Your task to perform on an android device: open app "Pandora - Music & Podcasts" (install if not already installed), go to login, and select forgot password Image 0: 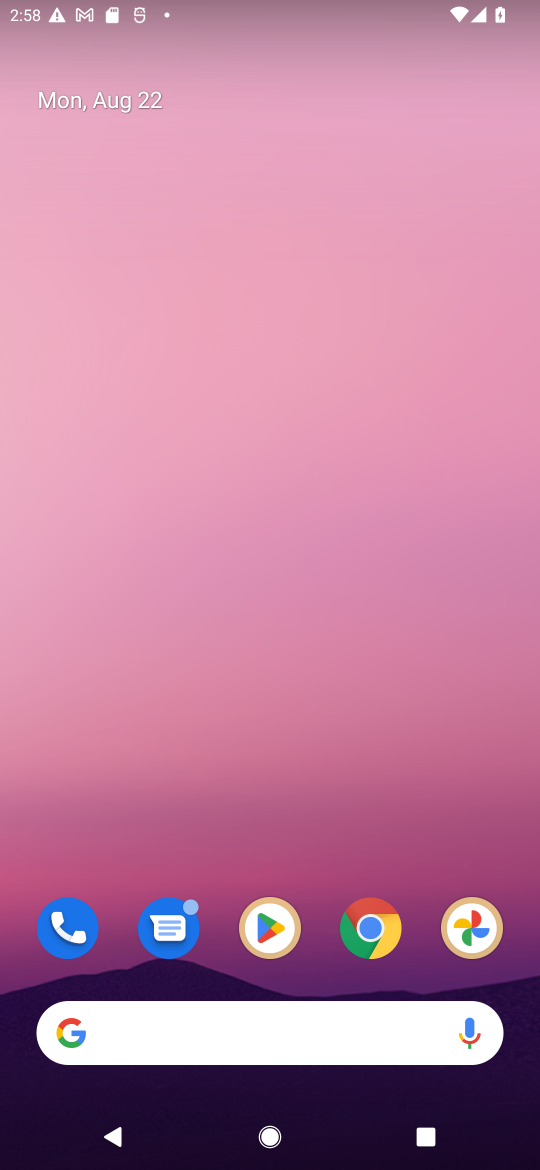
Step 0: click (256, 922)
Your task to perform on an android device: open app "Pandora - Music & Podcasts" (install if not already installed), go to login, and select forgot password Image 1: 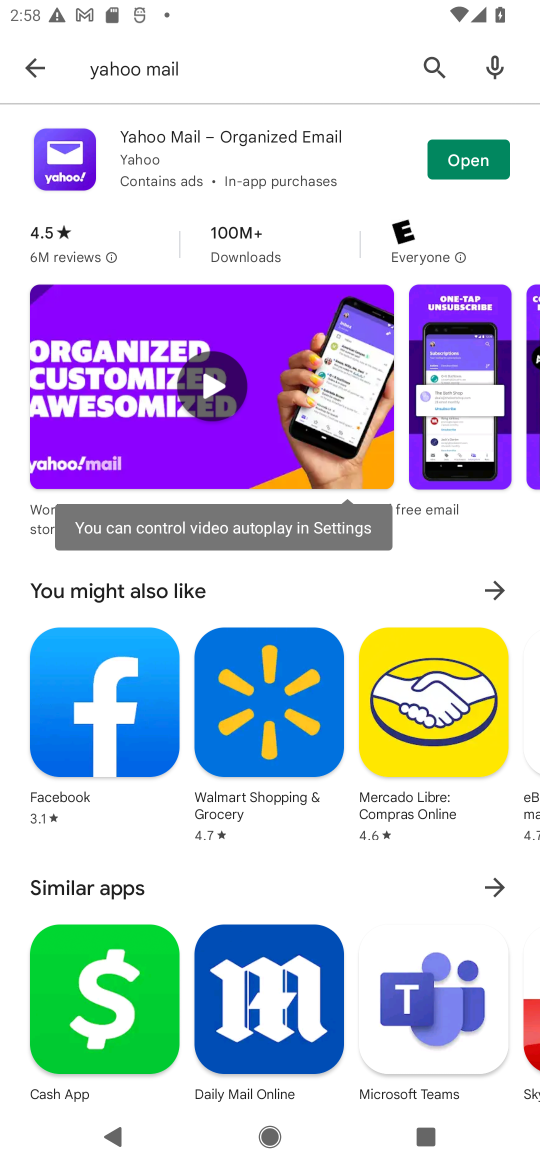
Step 1: click (161, 73)
Your task to perform on an android device: open app "Pandora - Music & Podcasts" (install if not already installed), go to login, and select forgot password Image 2: 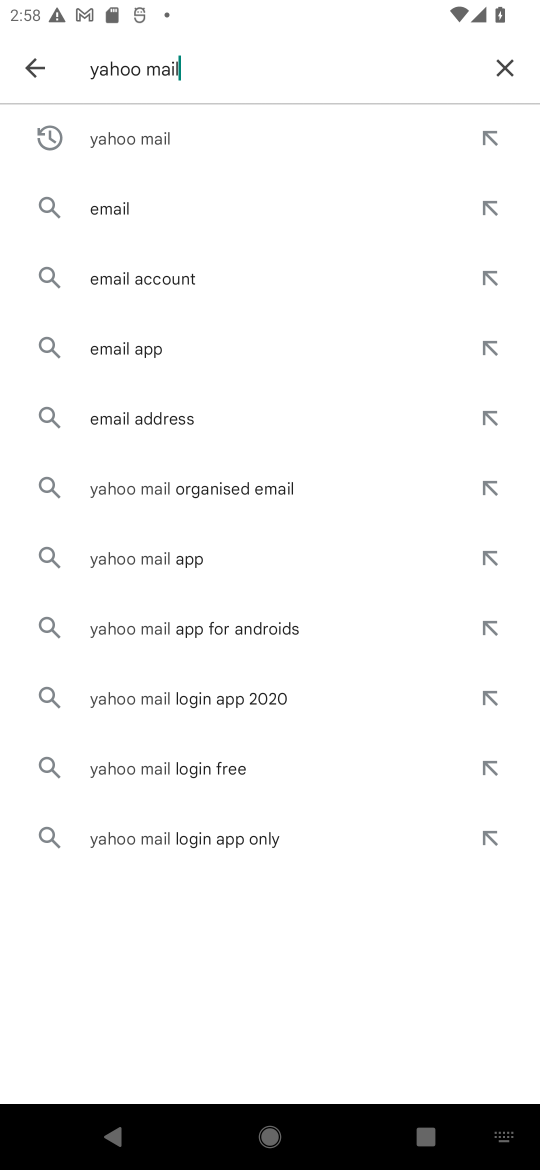
Step 2: click (496, 68)
Your task to perform on an android device: open app "Pandora - Music & Podcasts" (install if not already installed), go to login, and select forgot password Image 3: 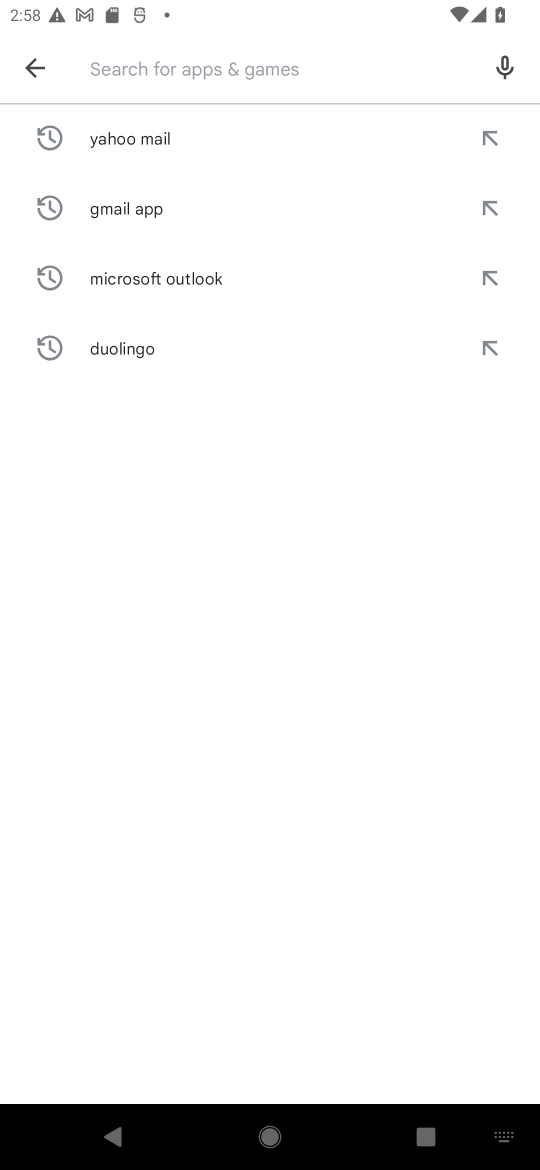
Step 3: type "Pandora"
Your task to perform on an android device: open app "Pandora - Music & Podcasts" (install if not already installed), go to login, and select forgot password Image 4: 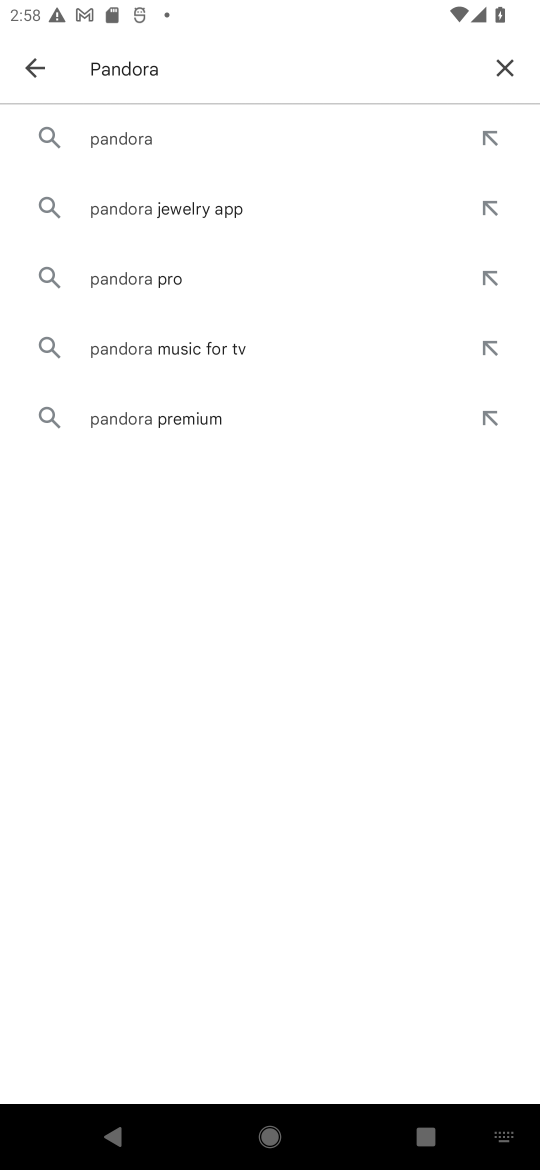
Step 4: click (265, 152)
Your task to perform on an android device: open app "Pandora - Music & Podcasts" (install if not already installed), go to login, and select forgot password Image 5: 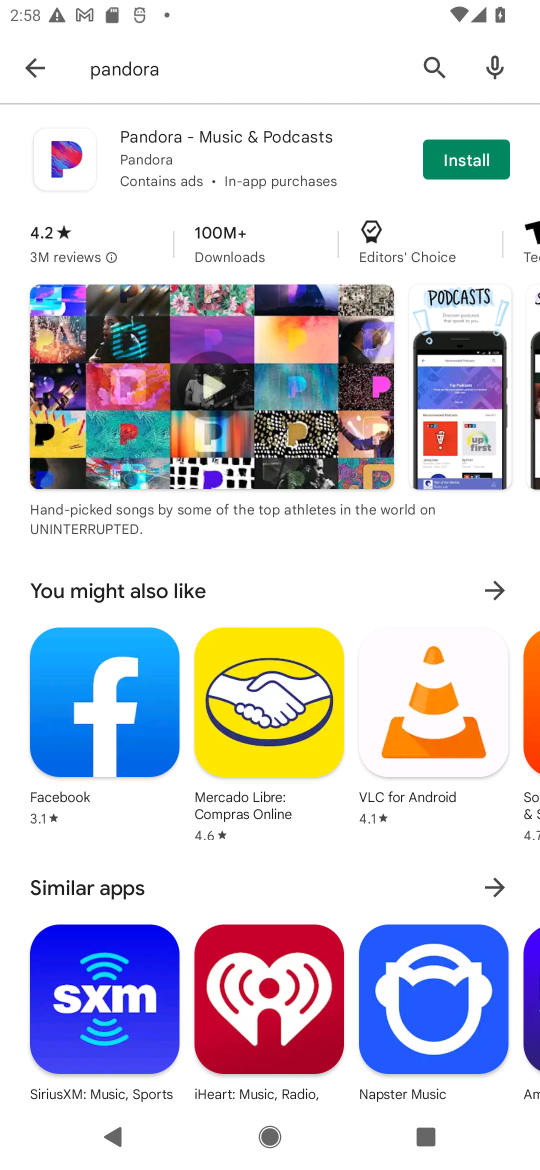
Step 5: click (455, 155)
Your task to perform on an android device: open app "Pandora - Music & Podcasts" (install if not already installed), go to login, and select forgot password Image 6: 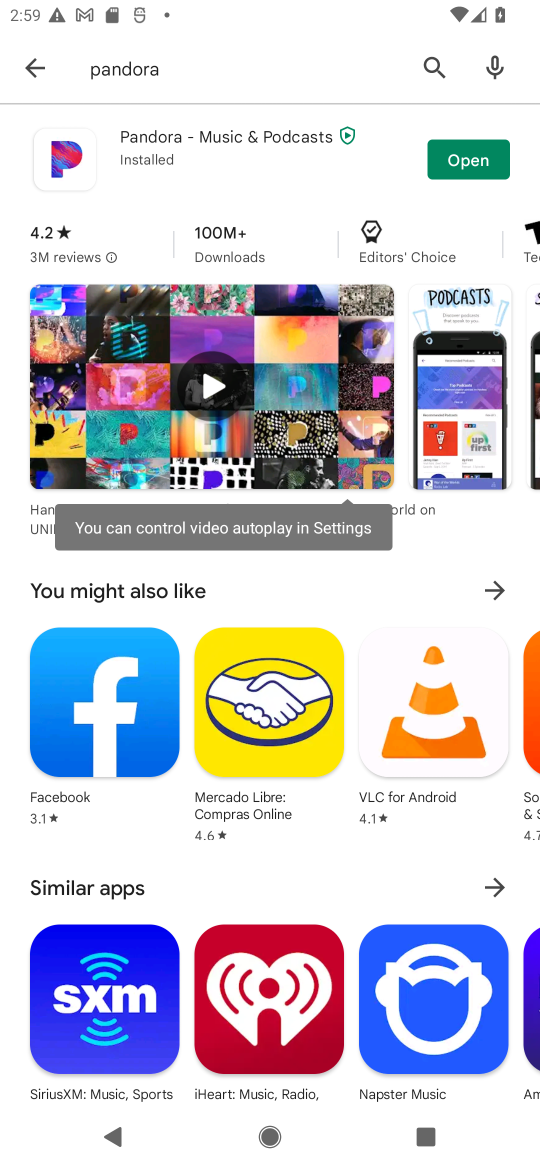
Step 6: click (477, 157)
Your task to perform on an android device: open app "Pandora - Music & Podcasts" (install if not already installed), go to login, and select forgot password Image 7: 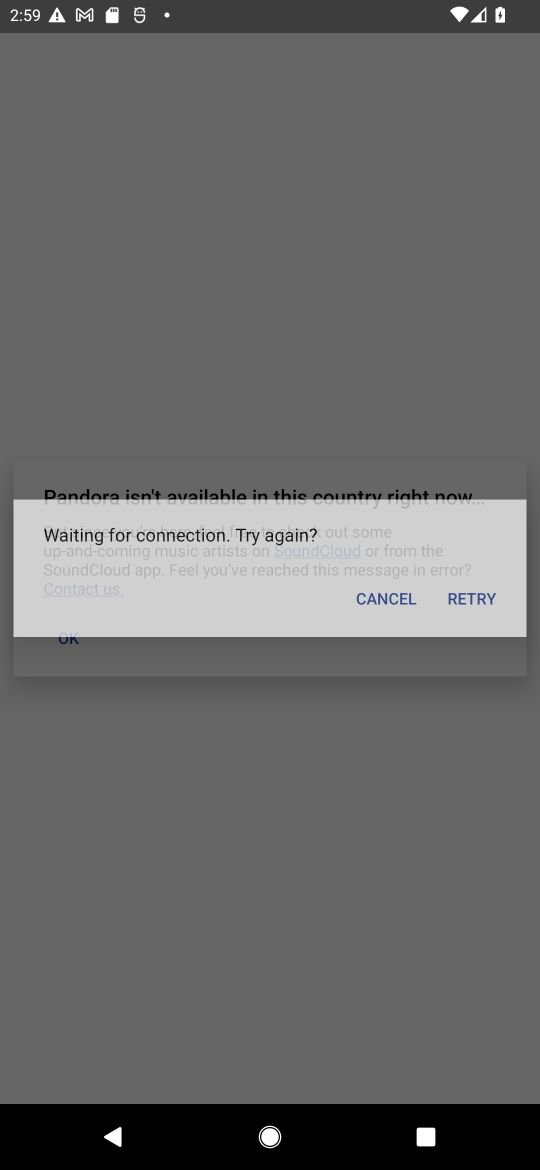
Step 7: click (73, 639)
Your task to perform on an android device: open app "Pandora - Music & Podcasts" (install if not already installed), go to login, and select forgot password Image 8: 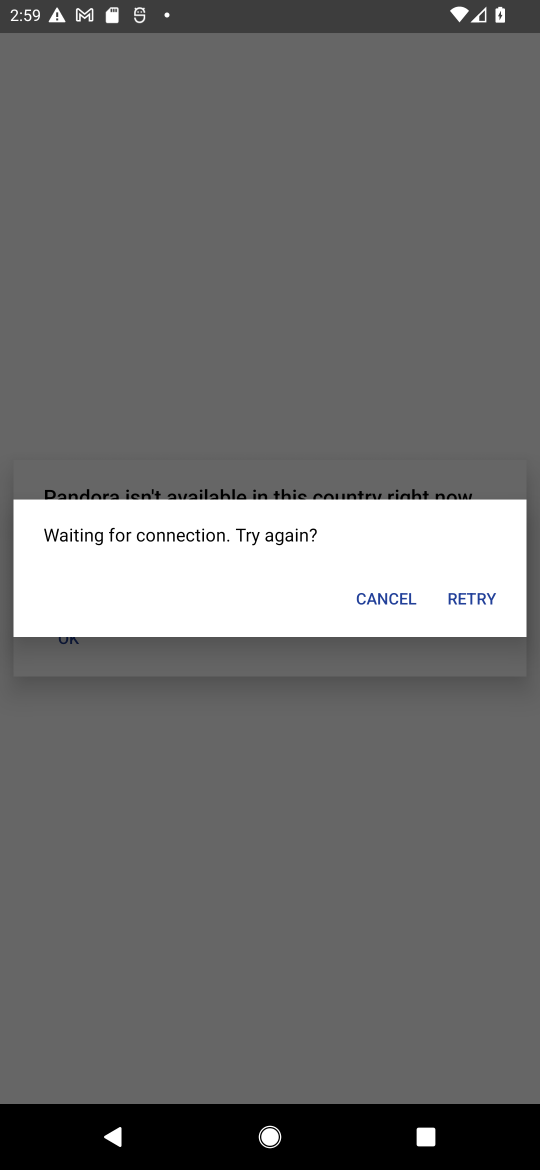
Step 8: click (443, 610)
Your task to perform on an android device: open app "Pandora - Music & Podcasts" (install if not already installed), go to login, and select forgot password Image 9: 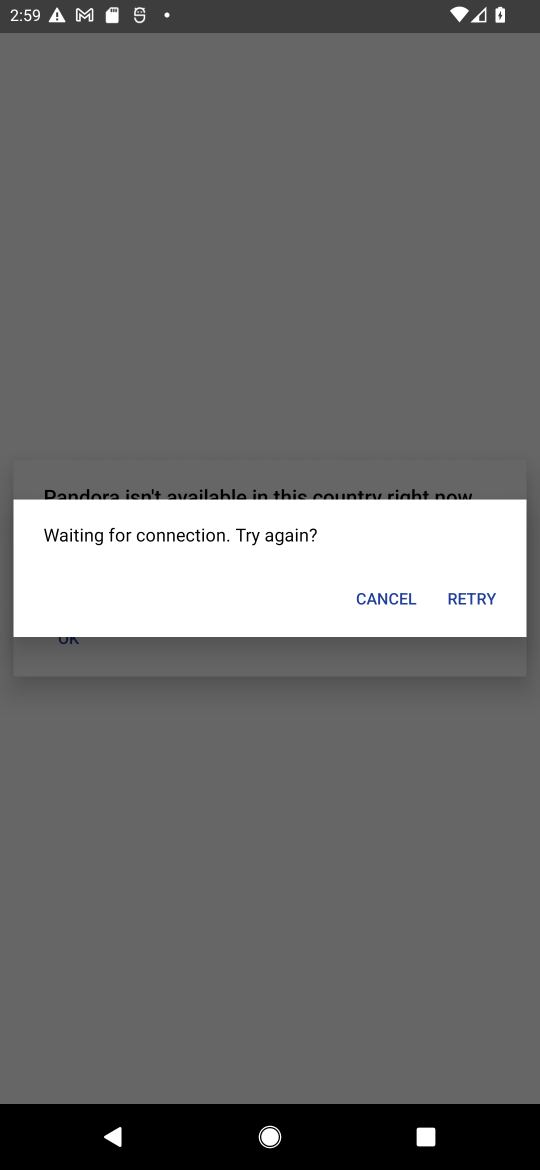
Step 9: click (469, 597)
Your task to perform on an android device: open app "Pandora - Music & Podcasts" (install if not already installed), go to login, and select forgot password Image 10: 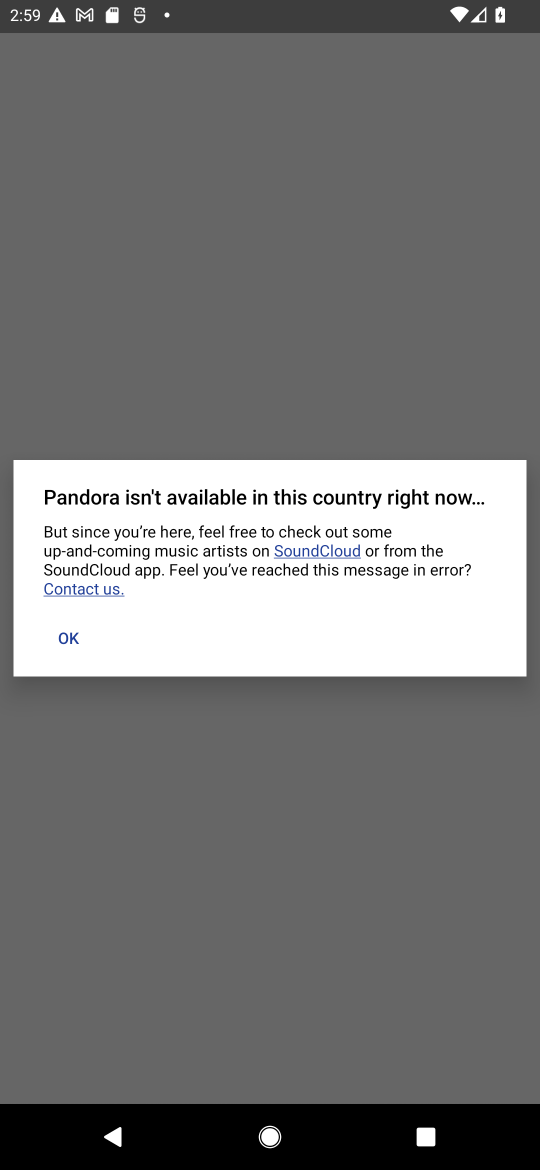
Step 10: click (73, 634)
Your task to perform on an android device: open app "Pandora - Music & Podcasts" (install if not already installed), go to login, and select forgot password Image 11: 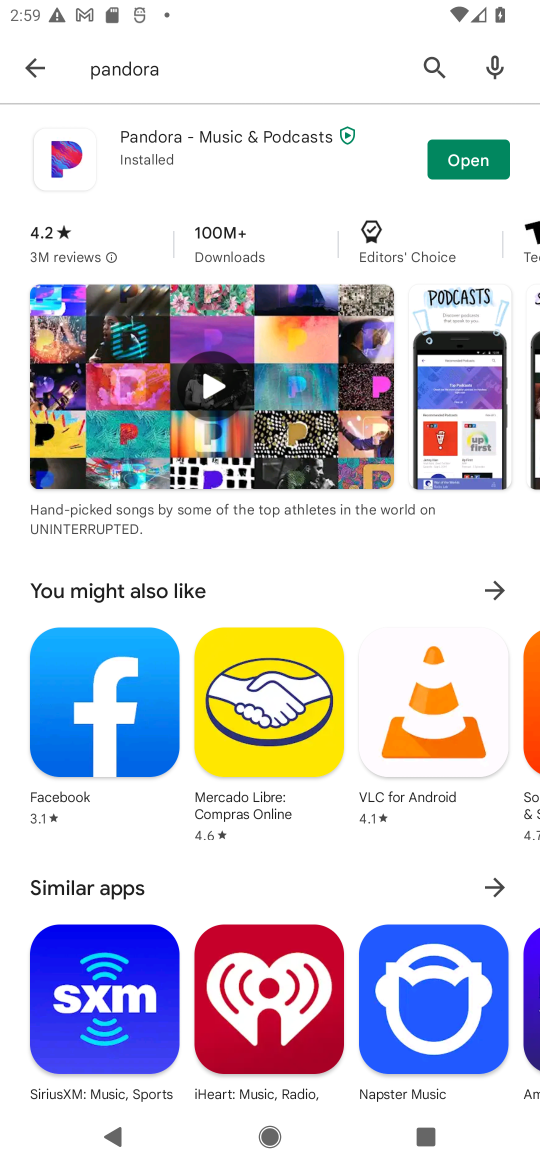
Step 11: task complete